Your task to perform on an android device: Open Google Chrome Image 0: 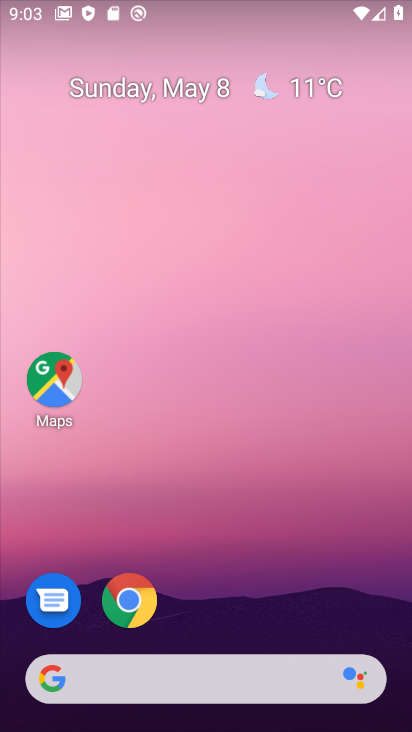
Step 0: click (131, 601)
Your task to perform on an android device: Open Google Chrome Image 1: 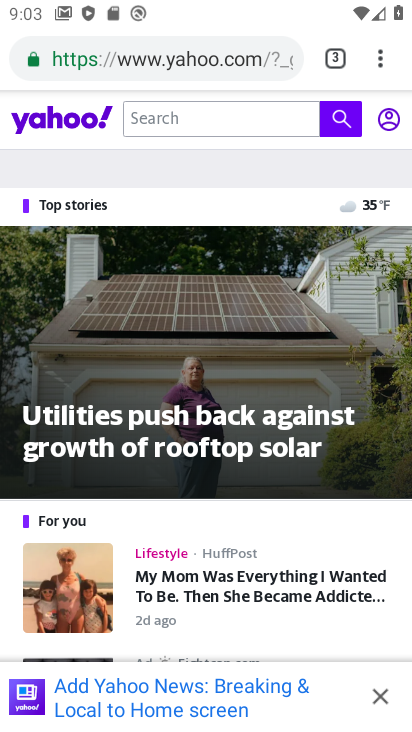
Step 1: task complete